Your task to perform on an android device: set default search engine in the chrome app Image 0: 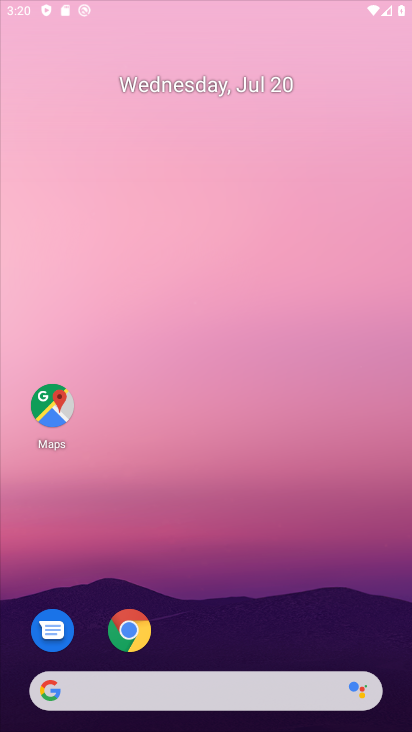
Step 0: press home button
Your task to perform on an android device: set default search engine in the chrome app Image 1: 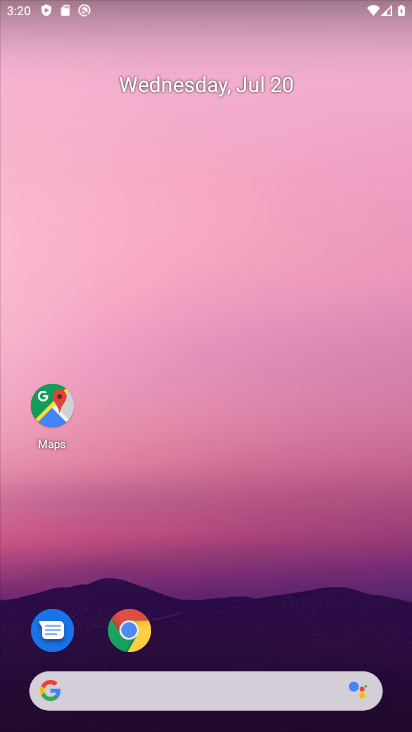
Step 1: drag from (251, 651) to (258, 3)
Your task to perform on an android device: set default search engine in the chrome app Image 2: 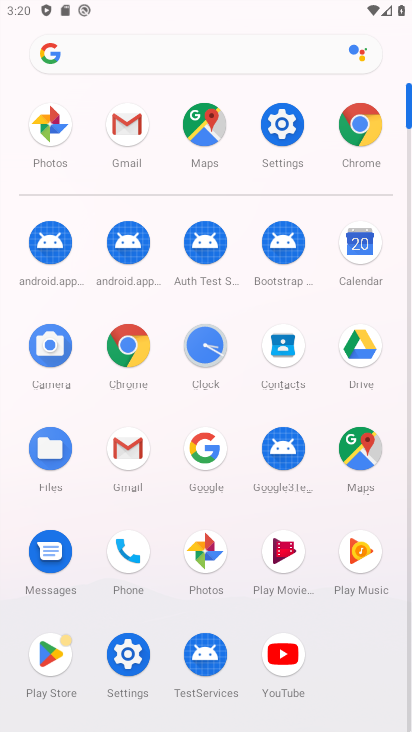
Step 2: click (356, 131)
Your task to perform on an android device: set default search engine in the chrome app Image 3: 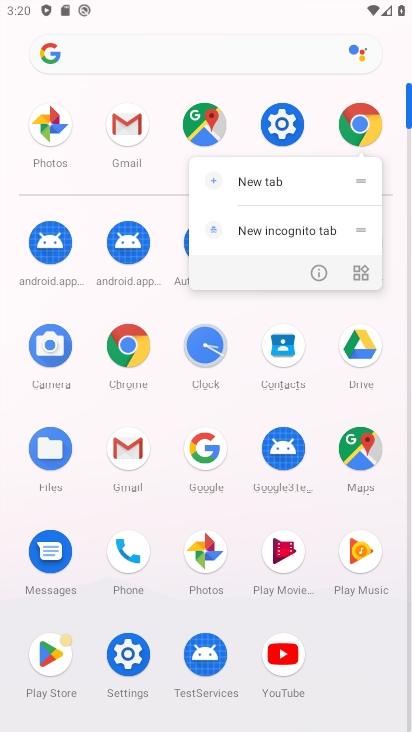
Step 3: click (356, 131)
Your task to perform on an android device: set default search engine in the chrome app Image 4: 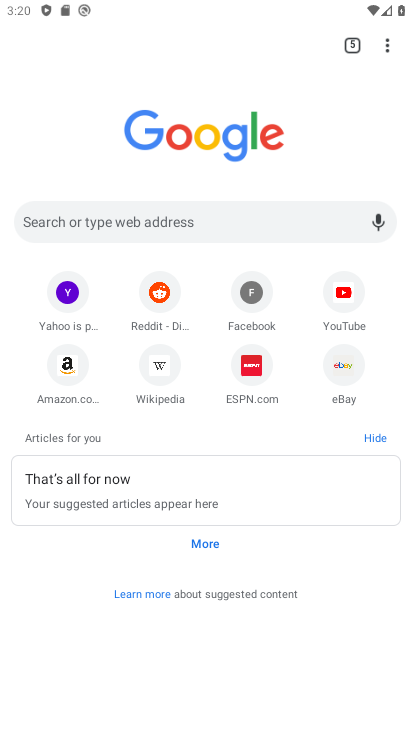
Step 4: drag from (380, 32) to (248, 383)
Your task to perform on an android device: set default search engine in the chrome app Image 5: 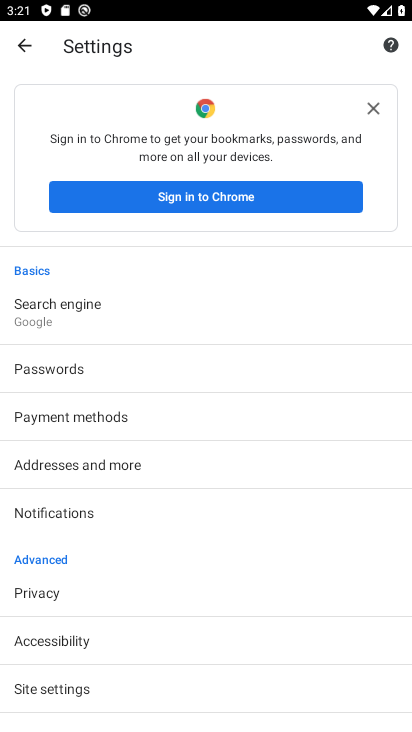
Step 5: click (47, 303)
Your task to perform on an android device: set default search engine in the chrome app Image 6: 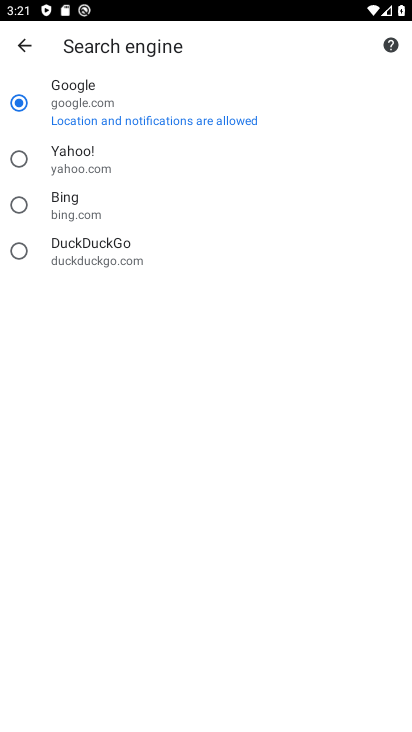
Step 6: click (21, 160)
Your task to perform on an android device: set default search engine in the chrome app Image 7: 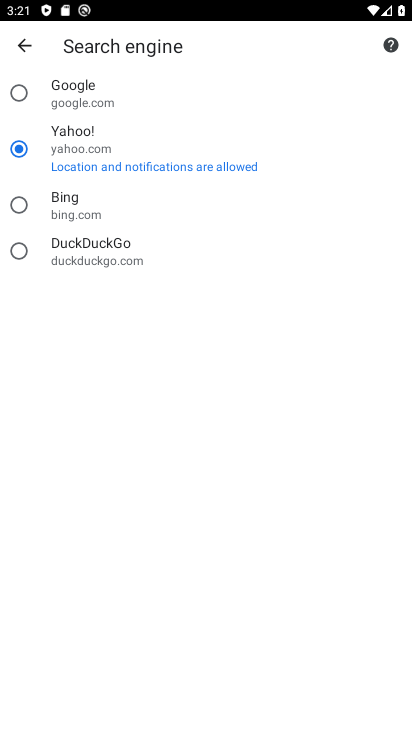
Step 7: task complete